Your task to perform on an android device: open app "DoorDash - Food Delivery" Image 0: 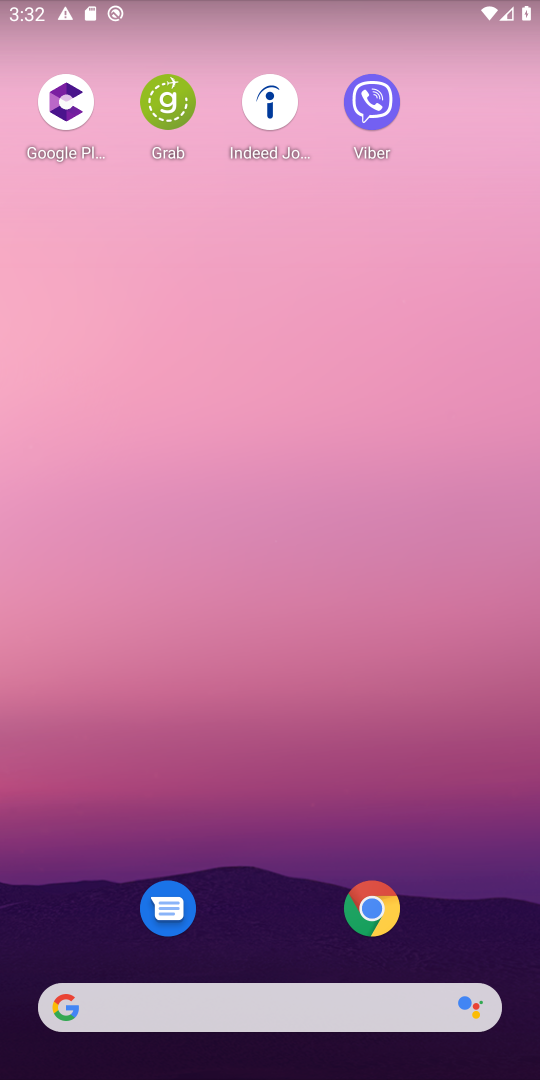
Step 0: drag from (223, 1018) to (216, 197)
Your task to perform on an android device: open app "DoorDash - Food Delivery" Image 1: 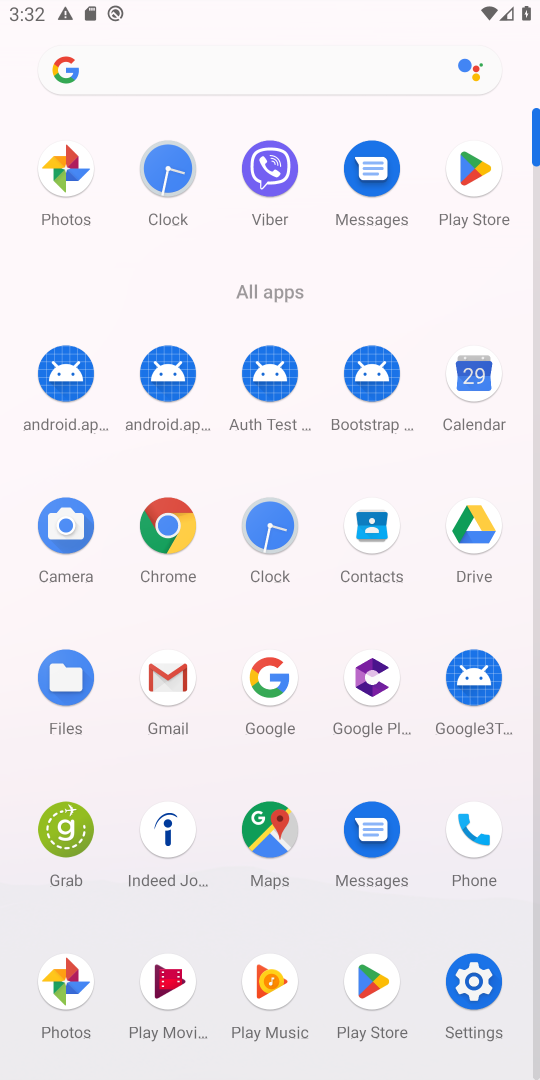
Step 1: click (392, 989)
Your task to perform on an android device: open app "DoorDash - Food Delivery" Image 2: 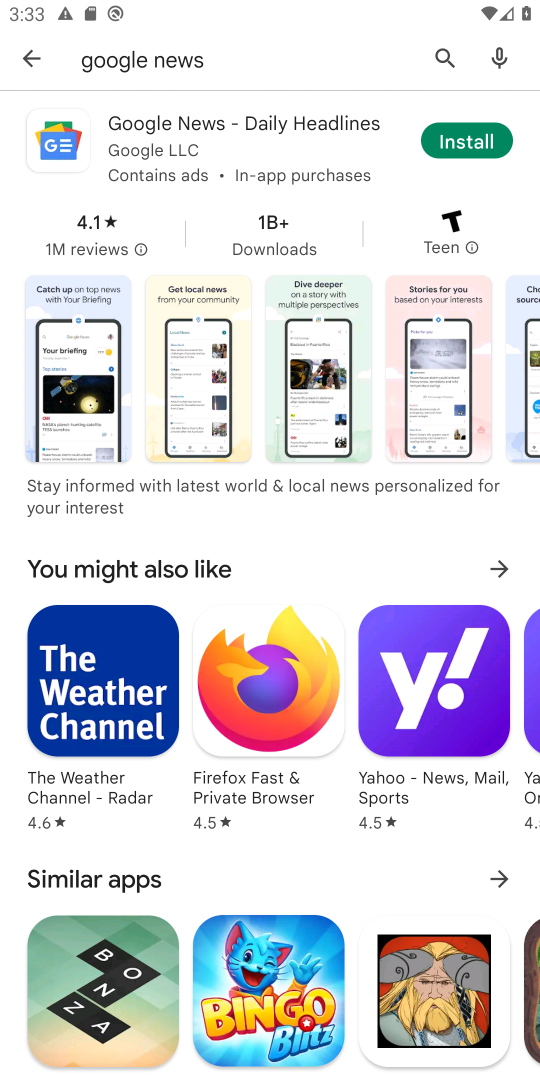
Step 2: click (434, 52)
Your task to perform on an android device: open app "DoorDash - Food Delivery" Image 3: 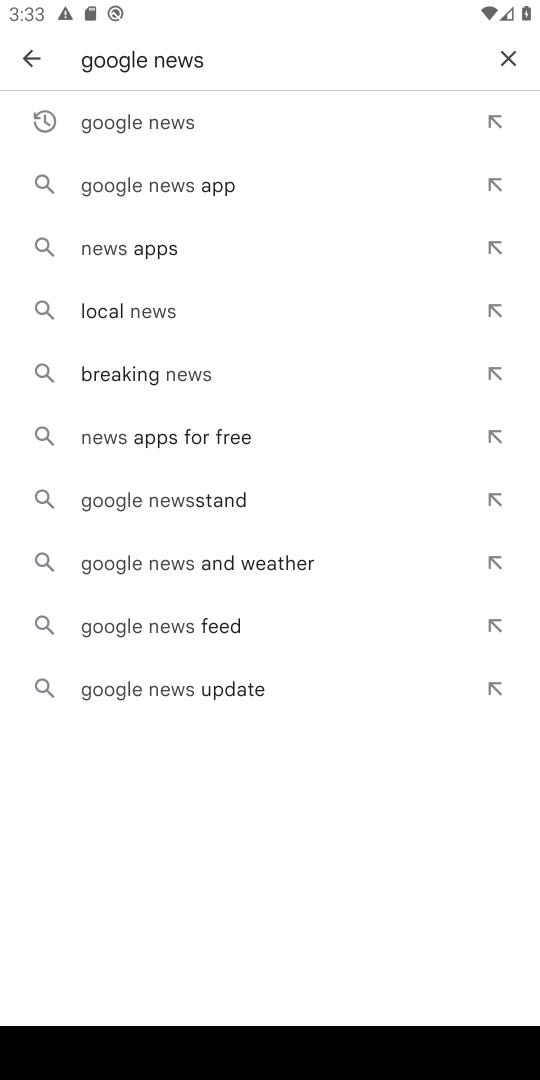
Step 3: click (509, 58)
Your task to perform on an android device: open app "DoorDash - Food Delivery" Image 4: 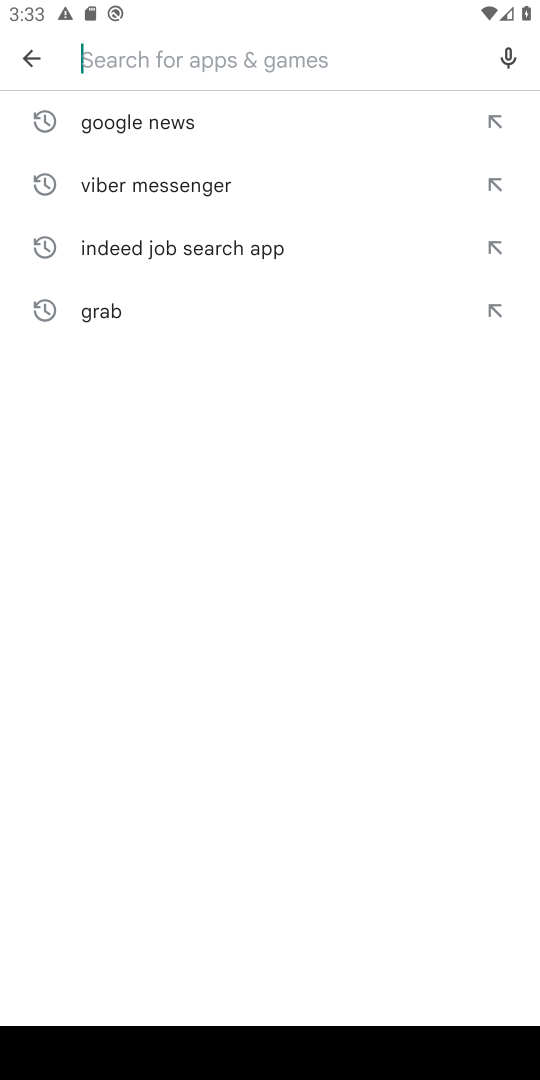
Step 4: type "DoorDash - Food Delivery"
Your task to perform on an android device: open app "DoorDash - Food Delivery" Image 5: 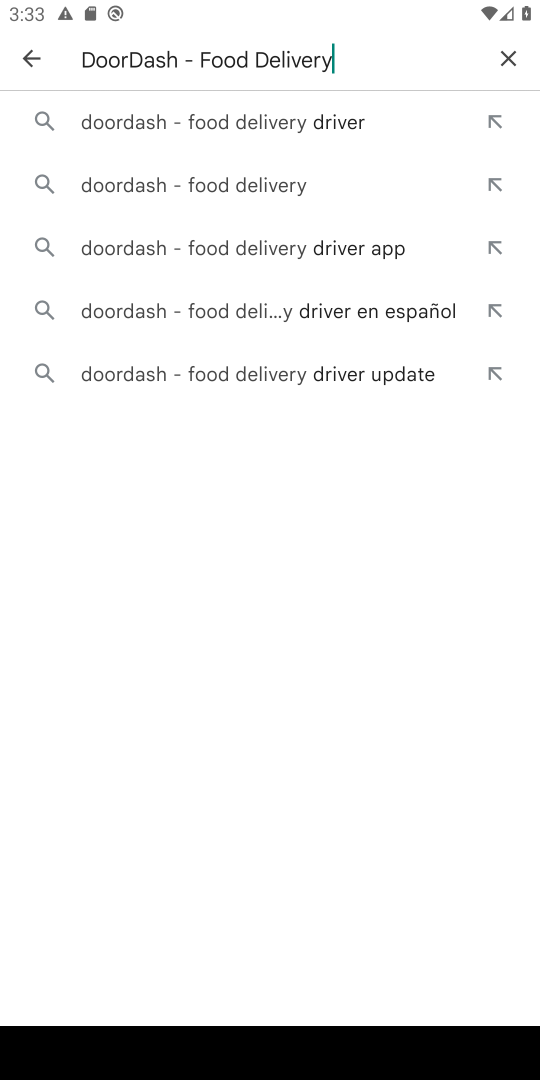
Step 5: click (240, 107)
Your task to perform on an android device: open app "DoorDash - Food Delivery" Image 6: 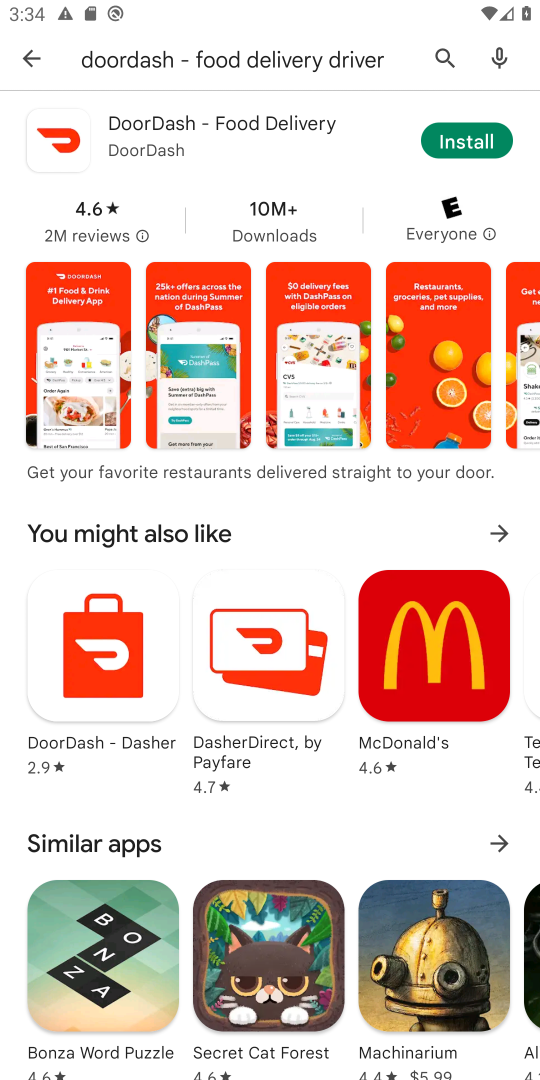
Step 6: task complete